Your task to perform on an android device: Open the calendar app, open the side menu, and click the "Day" option Image 0: 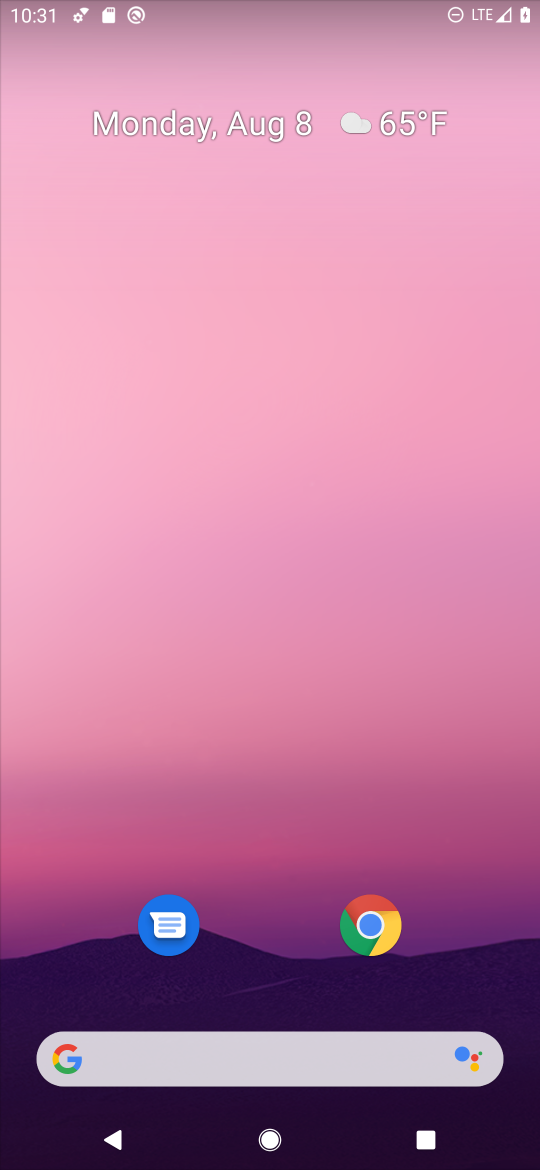
Step 0: drag from (271, 909) to (393, 233)
Your task to perform on an android device: Open the calendar app, open the side menu, and click the "Day" option Image 1: 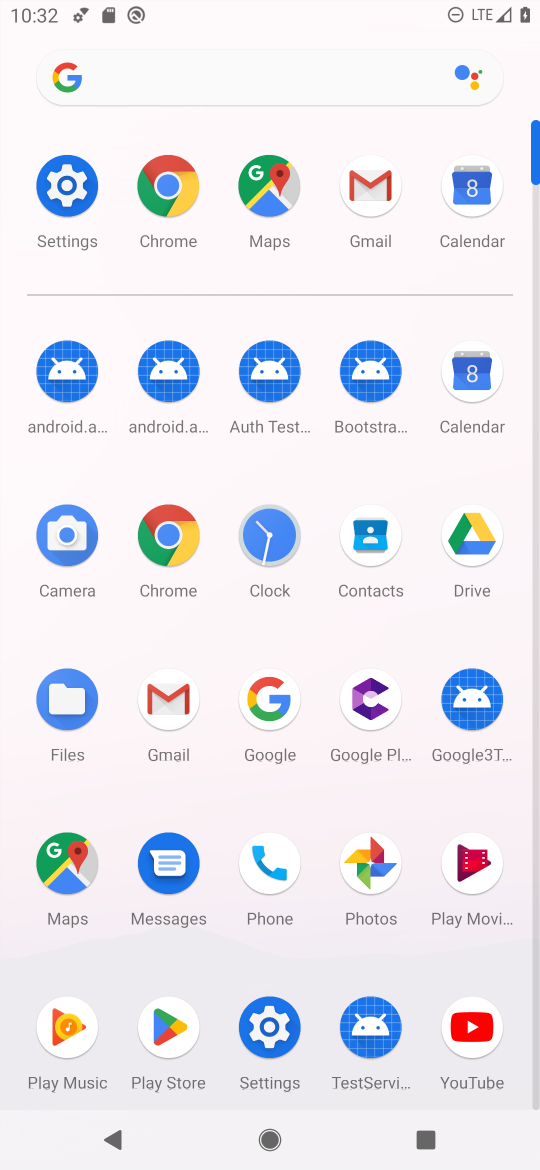
Step 1: click (468, 362)
Your task to perform on an android device: Open the calendar app, open the side menu, and click the "Day" option Image 2: 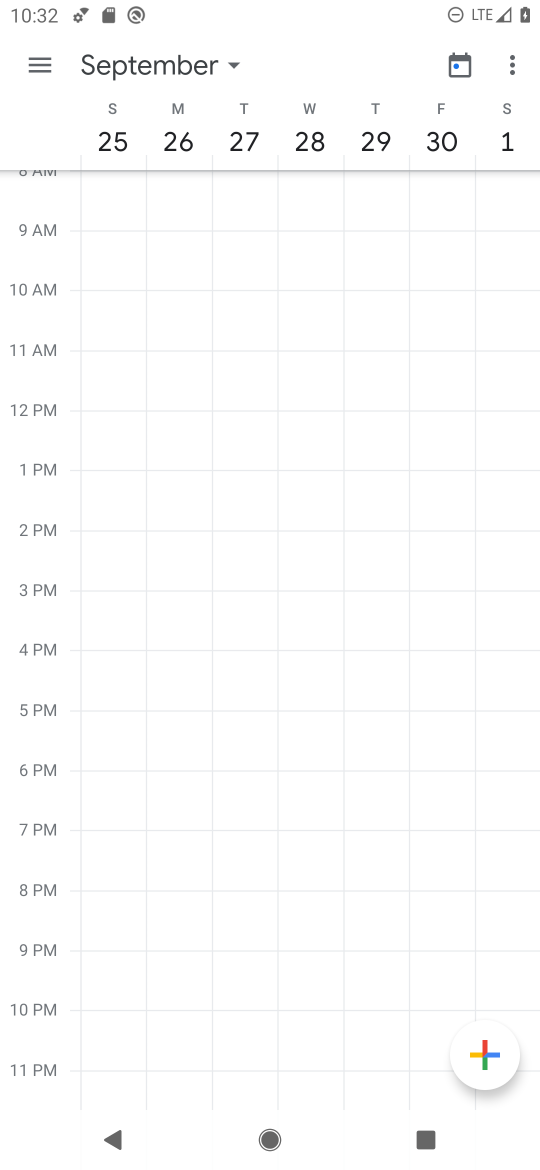
Step 2: click (29, 39)
Your task to perform on an android device: Open the calendar app, open the side menu, and click the "Day" option Image 3: 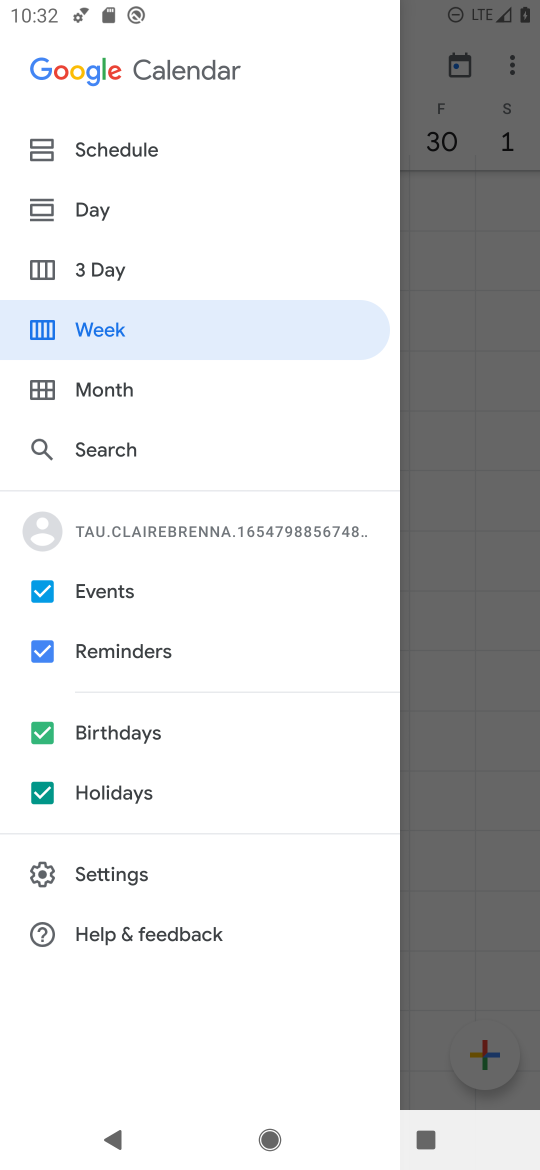
Step 3: click (126, 233)
Your task to perform on an android device: Open the calendar app, open the side menu, and click the "Day" option Image 4: 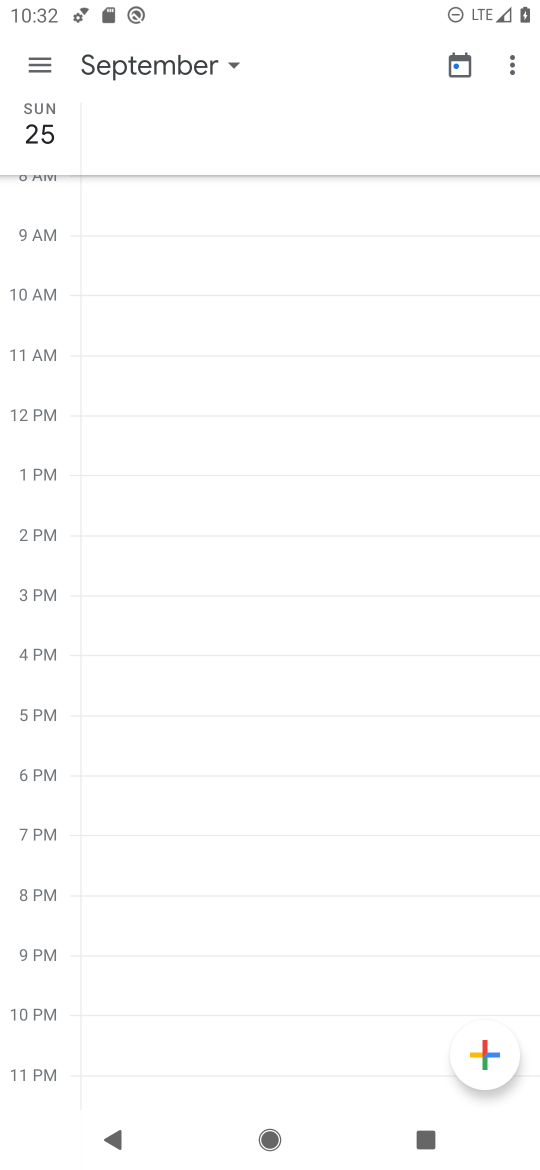
Step 4: task complete